Your task to perform on an android device: open app "Duolingo: language lessons" (install if not already installed) Image 0: 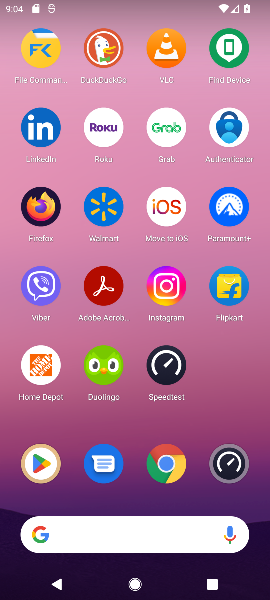
Step 0: click (119, 363)
Your task to perform on an android device: open app "Duolingo: language lessons" (install if not already installed) Image 1: 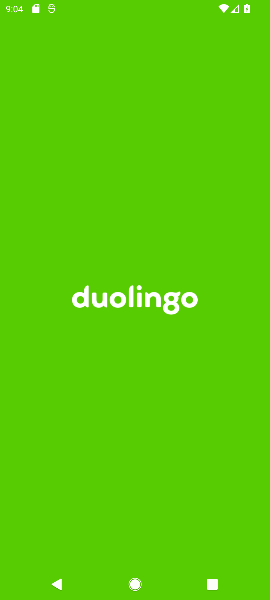
Step 1: task complete